Your task to perform on an android device: open the mobile data screen to see how much data has been used Image 0: 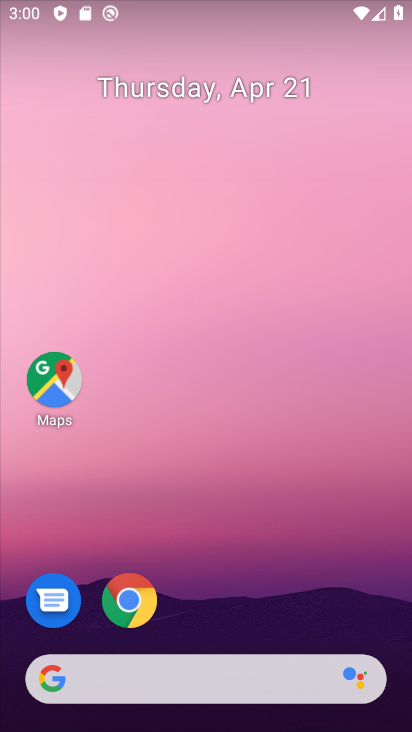
Step 0: drag from (315, 599) to (348, 86)
Your task to perform on an android device: open the mobile data screen to see how much data has been used Image 1: 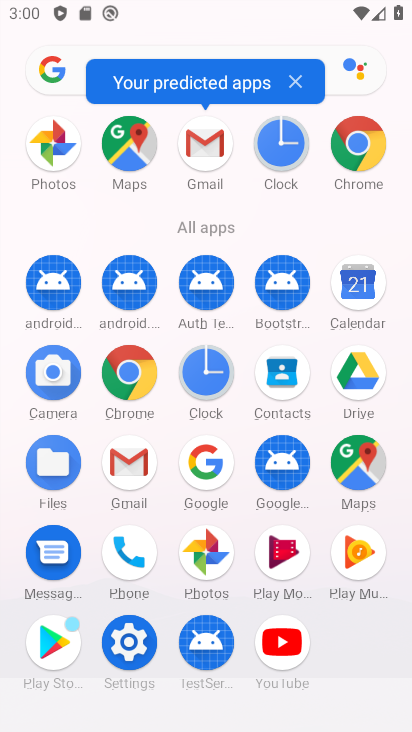
Step 1: click (131, 636)
Your task to perform on an android device: open the mobile data screen to see how much data has been used Image 2: 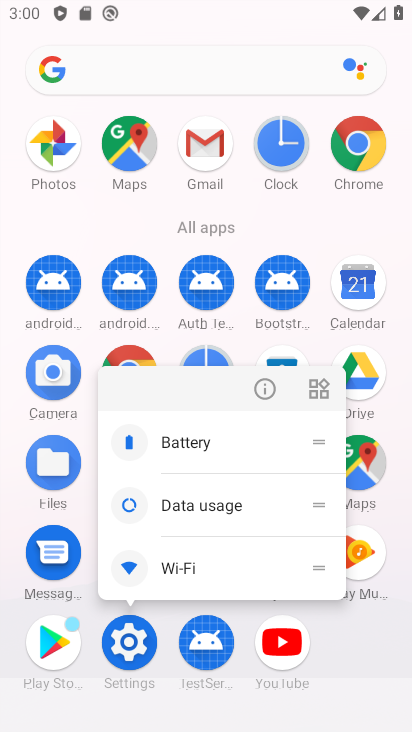
Step 2: click (132, 647)
Your task to perform on an android device: open the mobile data screen to see how much data has been used Image 3: 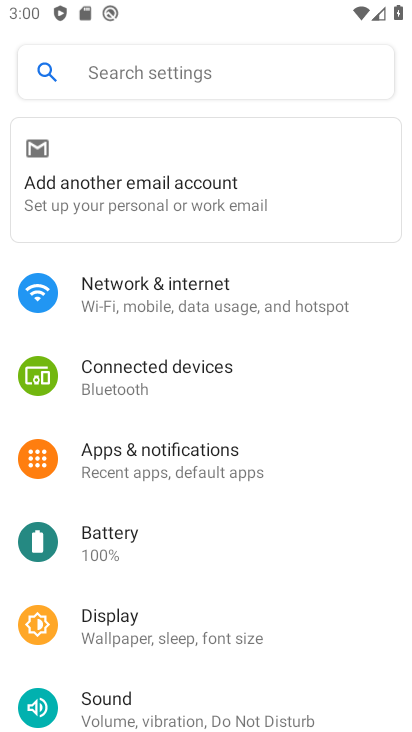
Step 3: click (168, 298)
Your task to perform on an android device: open the mobile data screen to see how much data has been used Image 4: 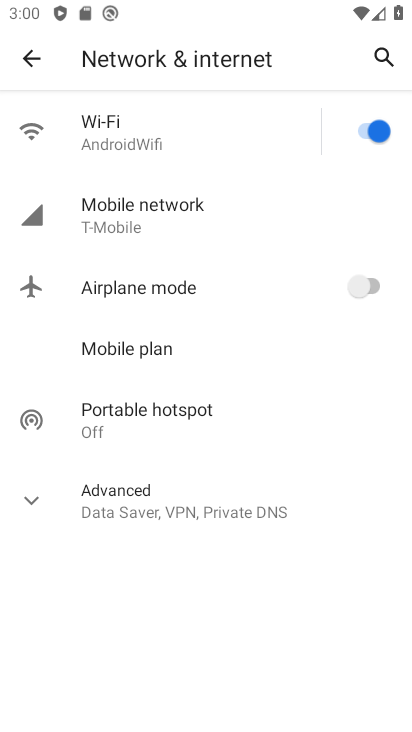
Step 4: click (181, 223)
Your task to perform on an android device: open the mobile data screen to see how much data has been used Image 5: 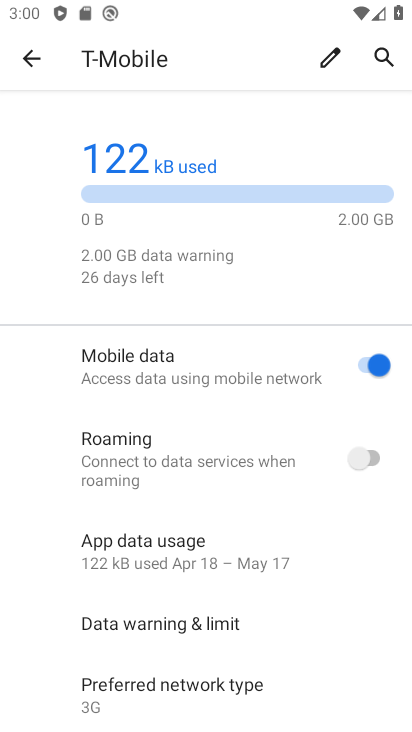
Step 5: click (159, 569)
Your task to perform on an android device: open the mobile data screen to see how much data has been used Image 6: 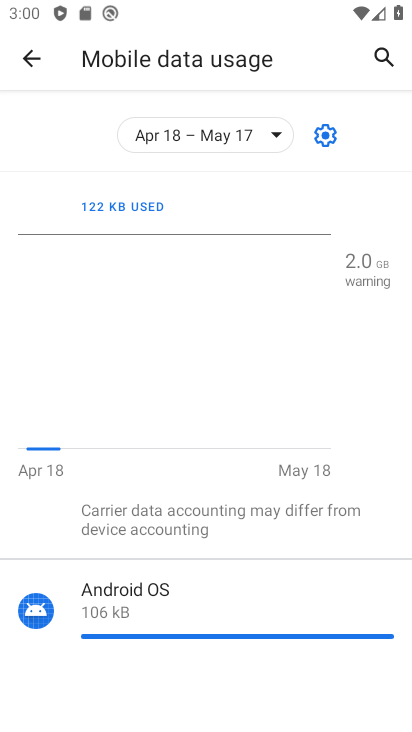
Step 6: task complete